Your task to perform on an android device: search for starred emails in the gmail app Image 0: 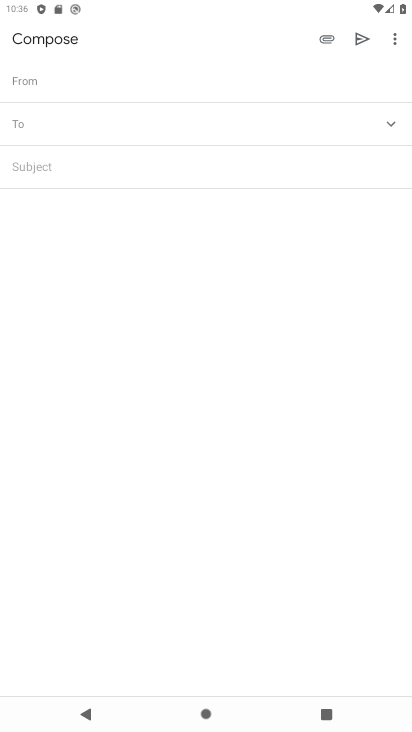
Step 0: press home button
Your task to perform on an android device: search for starred emails in the gmail app Image 1: 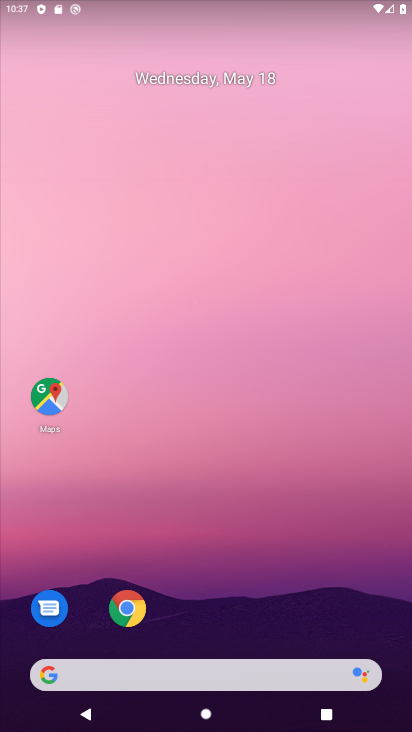
Step 1: drag from (301, 440) to (312, 84)
Your task to perform on an android device: search for starred emails in the gmail app Image 2: 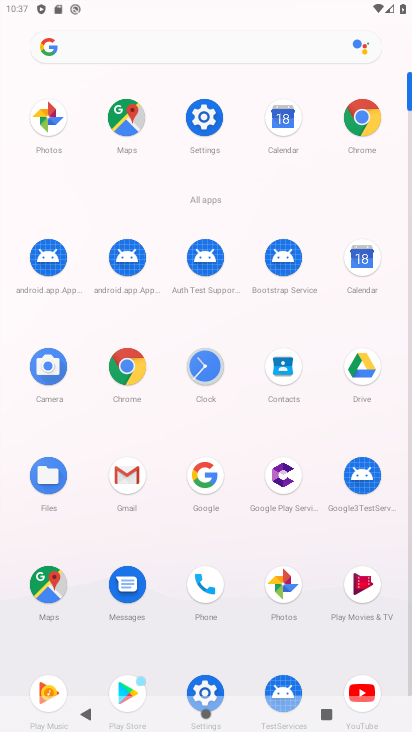
Step 2: click (128, 490)
Your task to perform on an android device: search for starred emails in the gmail app Image 3: 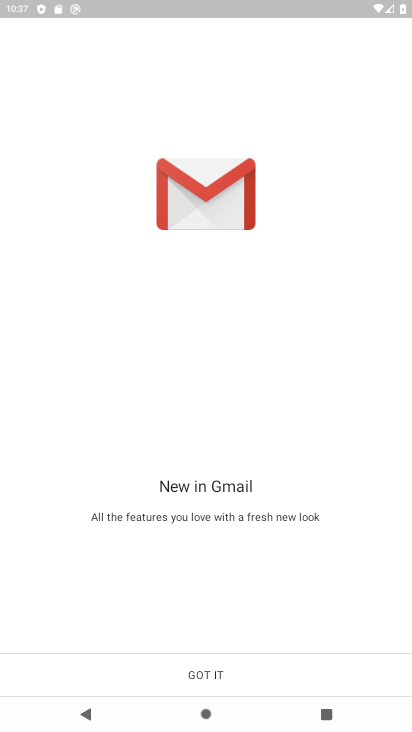
Step 3: click (211, 681)
Your task to perform on an android device: search for starred emails in the gmail app Image 4: 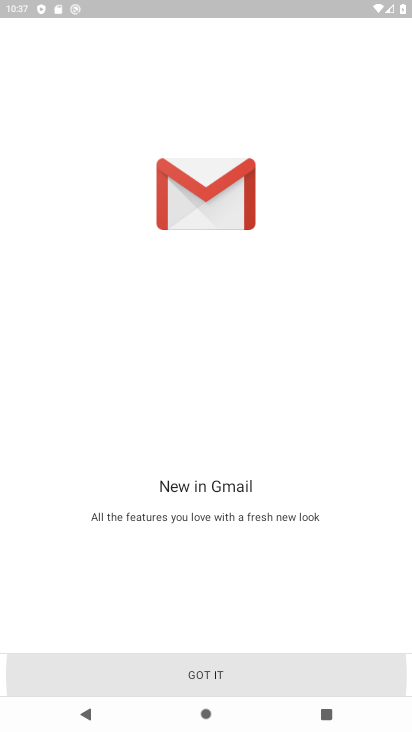
Step 4: click (211, 681)
Your task to perform on an android device: search for starred emails in the gmail app Image 5: 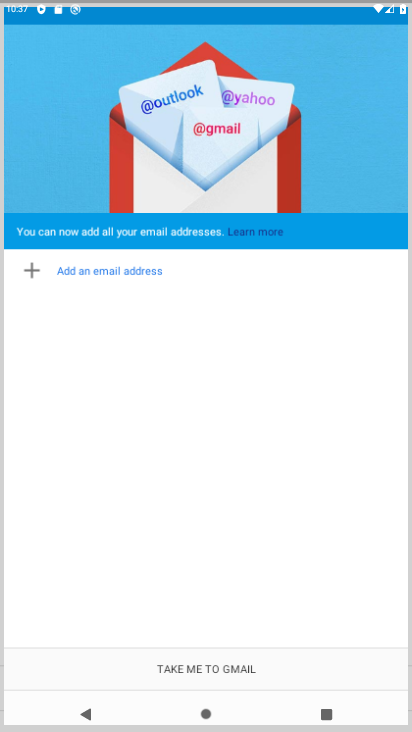
Step 5: click (211, 681)
Your task to perform on an android device: search for starred emails in the gmail app Image 6: 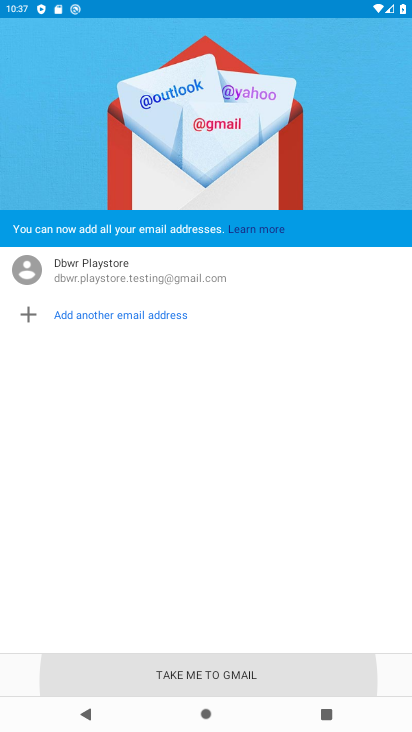
Step 6: click (211, 681)
Your task to perform on an android device: search for starred emails in the gmail app Image 7: 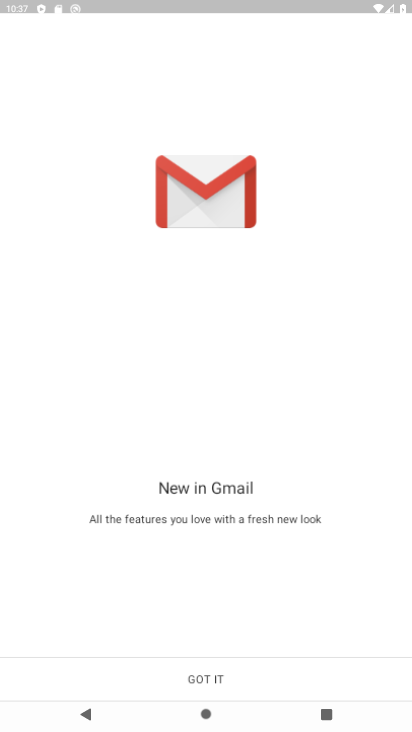
Step 7: click (211, 681)
Your task to perform on an android device: search for starred emails in the gmail app Image 8: 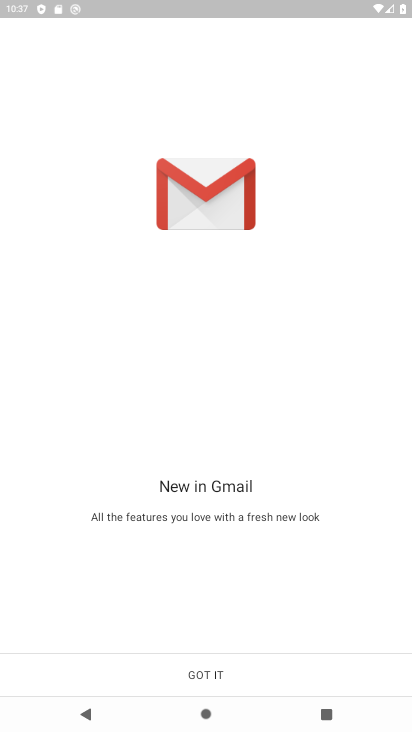
Step 8: click (211, 681)
Your task to perform on an android device: search for starred emails in the gmail app Image 9: 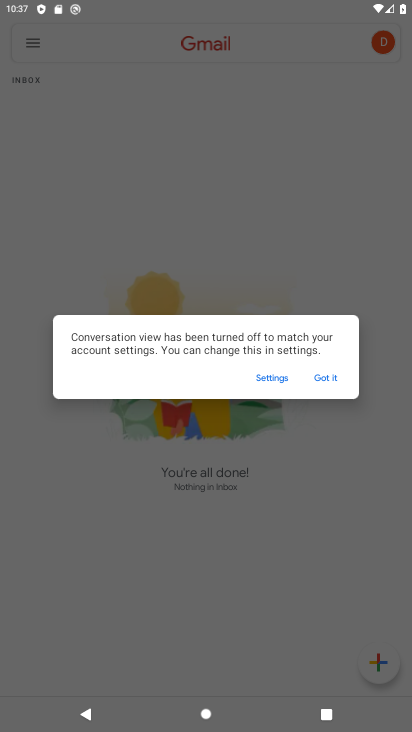
Step 9: click (317, 371)
Your task to perform on an android device: search for starred emails in the gmail app Image 10: 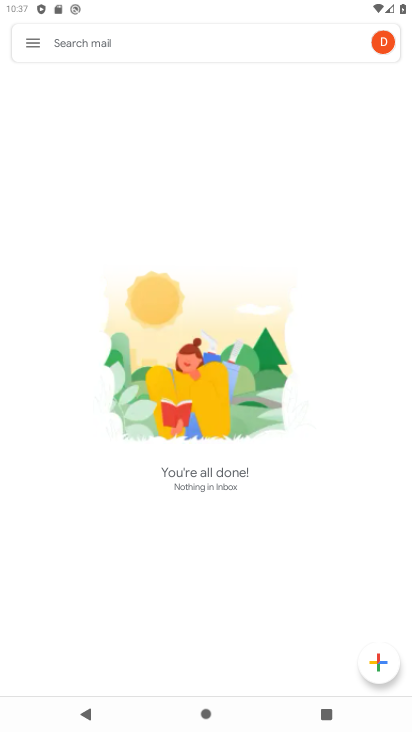
Step 10: click (28, 42)
Your task to perform on an android device: search for starred emails in the gmail app Image 11: 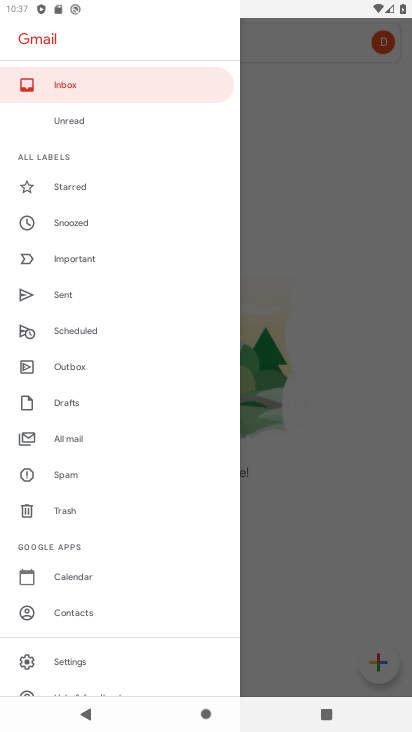
Step 11: click (69, 195)
Your task to perform on an android device: search for starred emails in the gmail app Image 12: 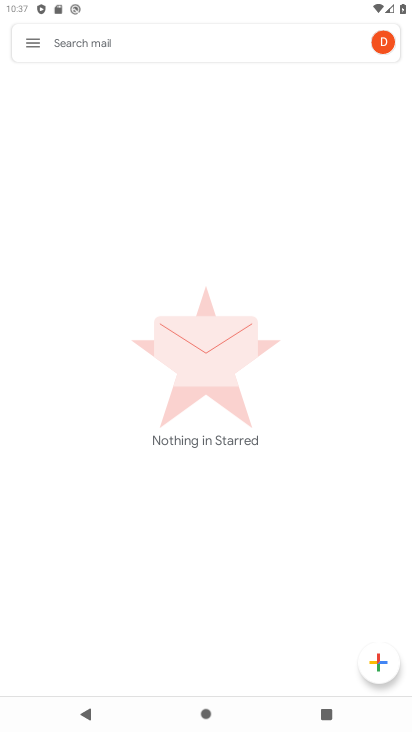
Step 12: task complete